Your task to perform on an android device: change text size in settings app Image 0: 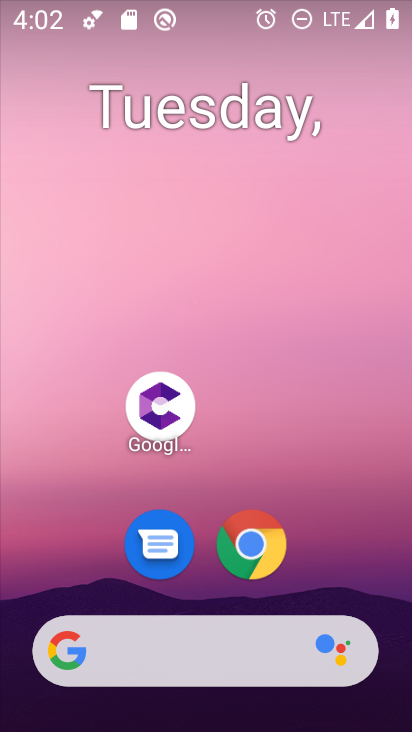
Step 0: drag from (357, 570) to (365, 164)
Your task to perform on an android device: change text size in settings app Image 1: 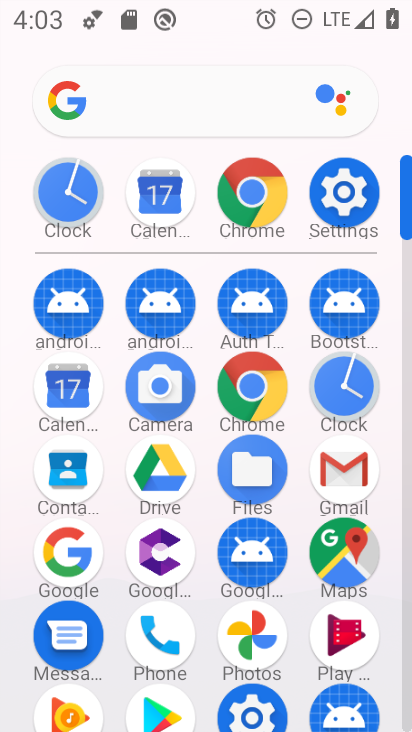
Step 1: click (353, 212)
Your task to perform on an android device: change text size in settings app Image 2: 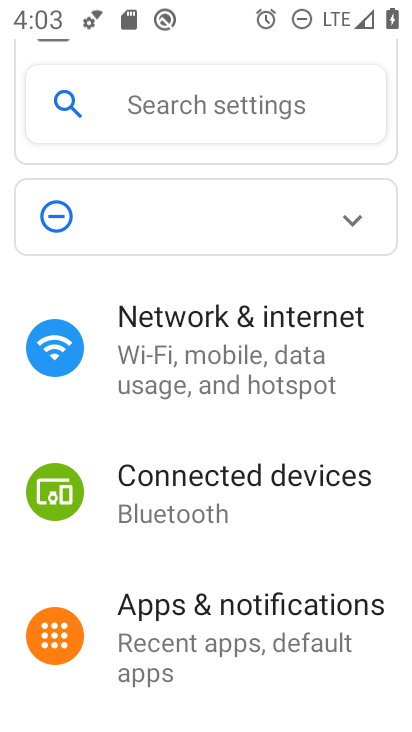
Step 2: drag from (340, 561) to (351, 414)
Your task to perform on an android device: change text size in settings app Image 3: 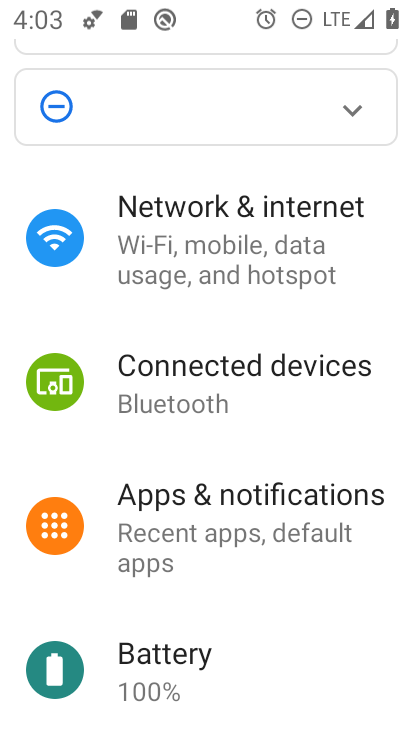
Step 3: drag from (322, 616) to (325, 446)
Your task to perform on an android device: change text size in settings app Image 4: 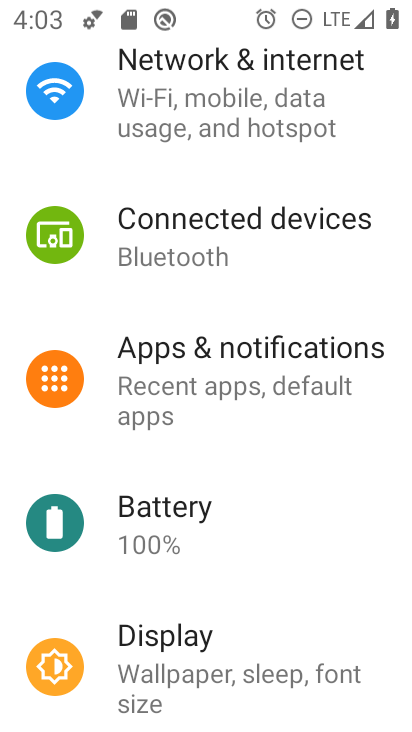
Step 4: drag from (308, 624) to (319, 467)
Your task to perform on an android device: change text size in settings app Image 5: 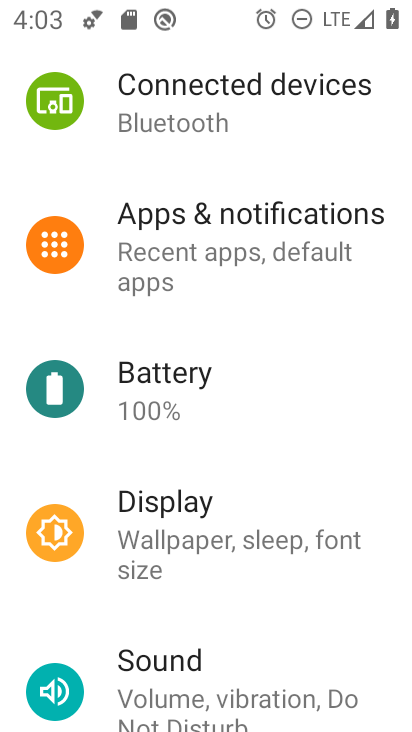
Step 5: drag from (295, 636) to (291, 473)
Your task to perform on an android device: change text size in settings app Image 6: 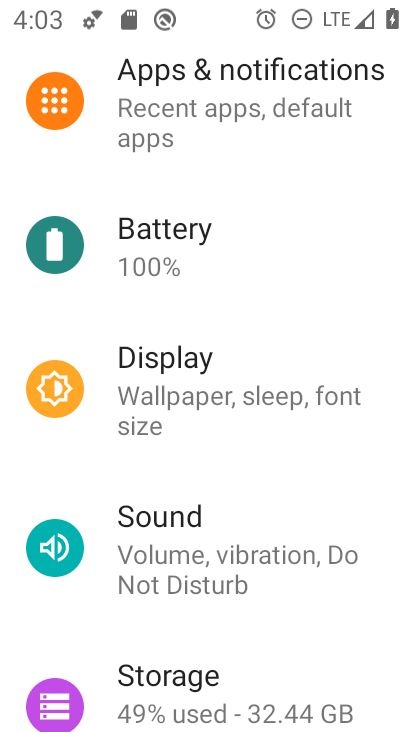
Step 6: drag from (311, 649) to (314, 474)
Your task to perform on an android device: change text size in settings app Image 7: 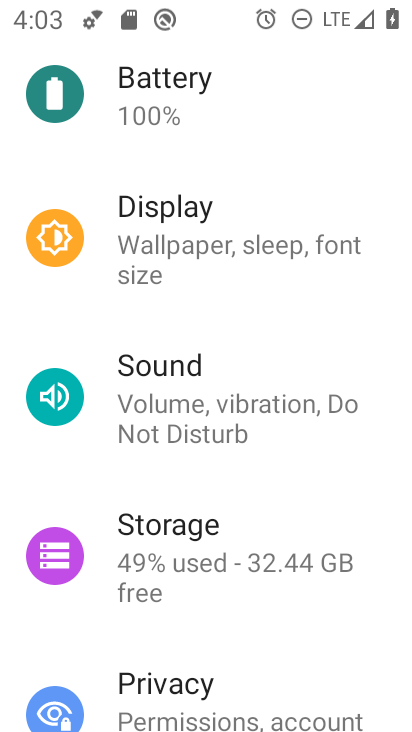
Step 7: drag from (293, 646) to (299, 461)
Your task to perform on an android device: change text size in settings app Image 8: 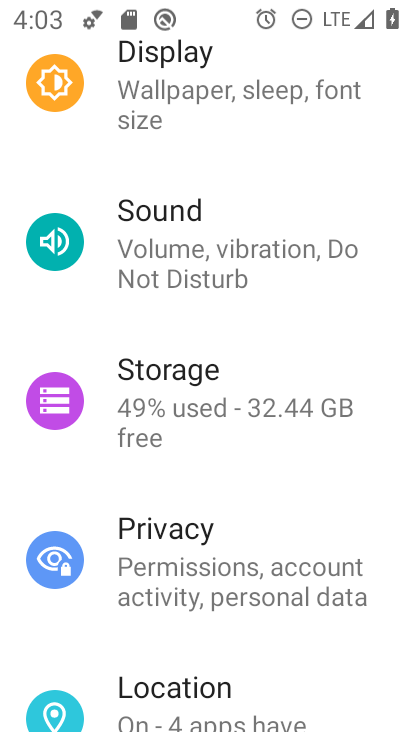
Step 8: drag from (305, 652) to (311, 485)
Your task to perform on an android device: change text size in settings app Image 9: 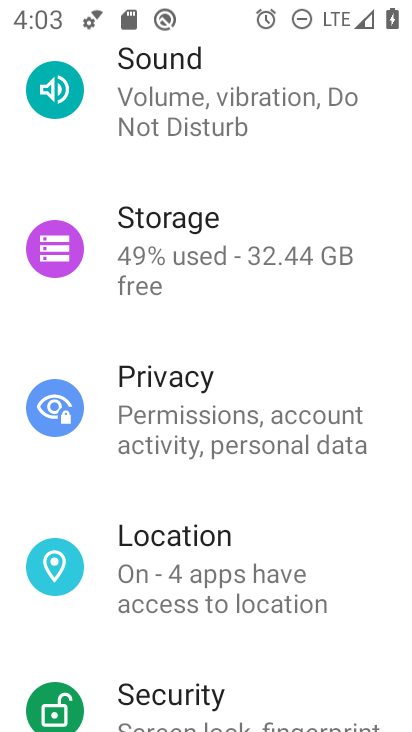
Step 9: drag from (332, 681) to (352, 519)
Your task to perform on an android device: change text size in settings app Image 10: 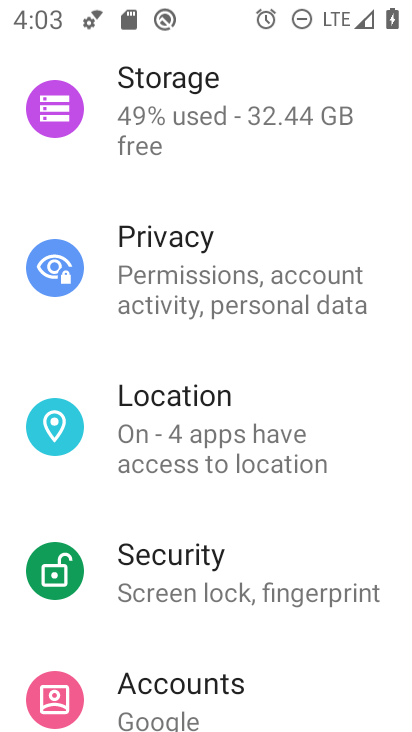
Step 10: drag from (323, 679) to (313, 539)
Your task to perform on an android device: change text size in settings app Image 11: 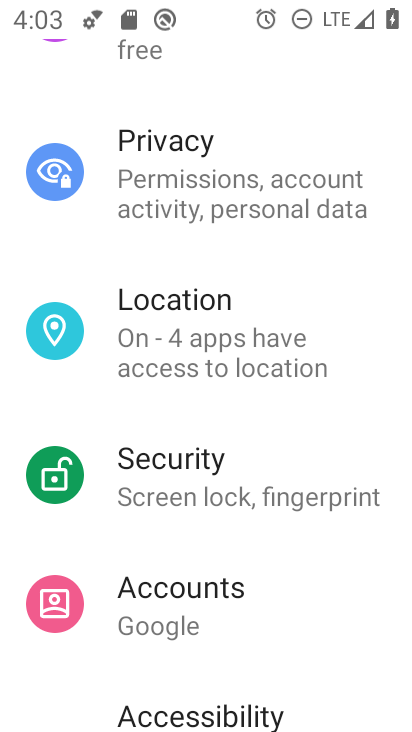
Step 11: drag from (310, 666) to (302, 564)
Your task to perform on an android device: change text size in settings app Image 12: 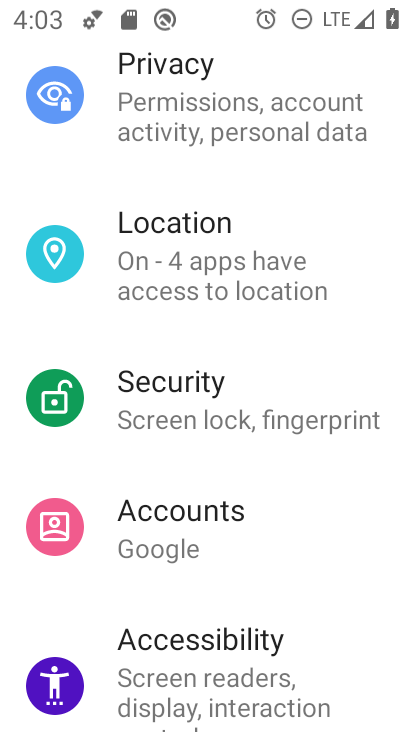
Step 12: drag from (331, 643) to (345, 533)
Your task to perform on an android device: change text size in settings app Image 13: 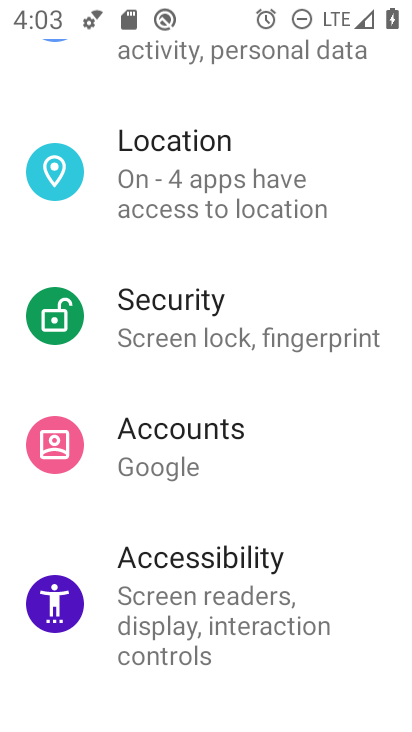
Step 13: drag from (362, 407) to (352, 560)
Your task to perform on an android device: change text size in settings app Image 14: 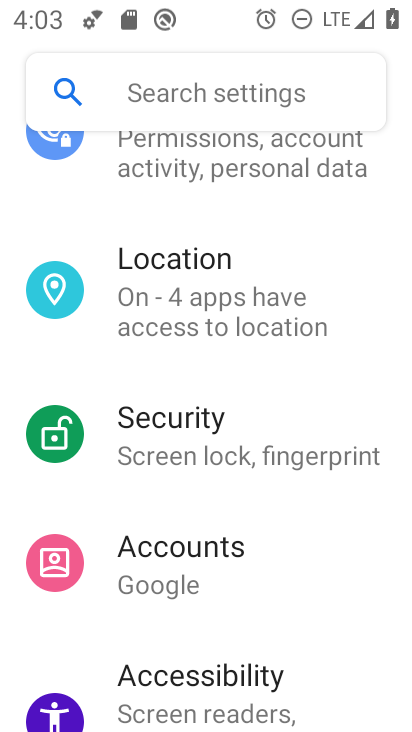
Step 14: drag from (356, 410) to (348, 529)
Your task to perform on an android device: change text size in settings app Image 15: 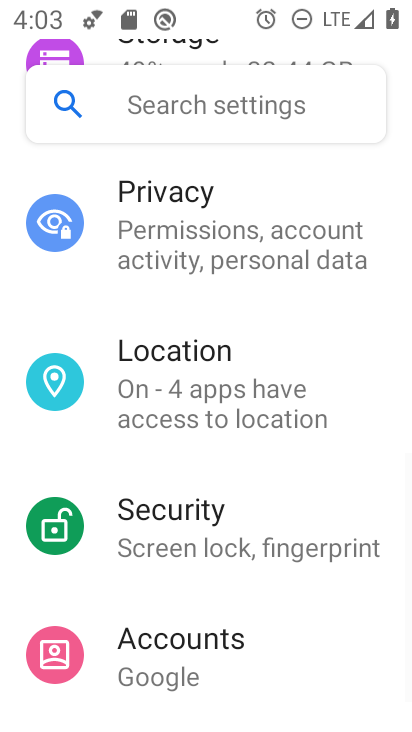
Step 15: drag from (366, 380) to (352, 488)
Your task to perform on an android device: change text size in settings app Image 16: 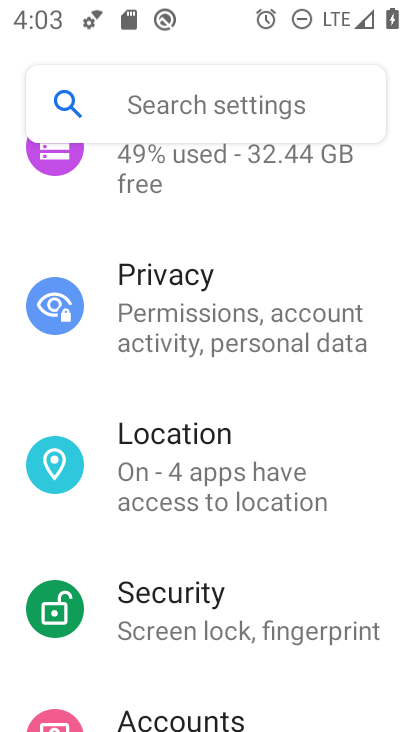
Step 16: drag from (384, 298) to (373, 451)
Your task to perform on an android device: change text size in settings app Image 17: 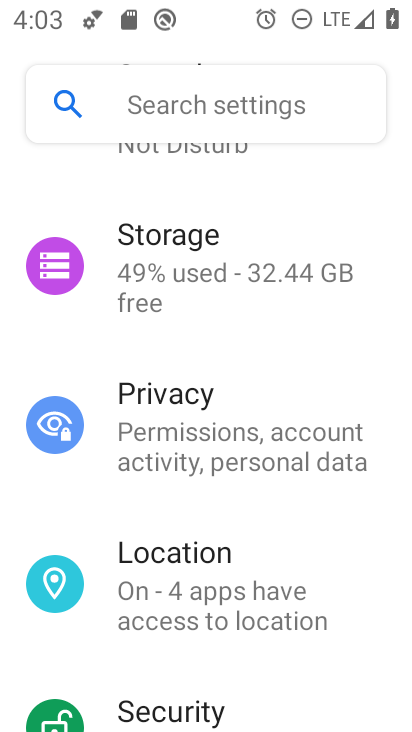
Step 17: drag from (367, 293) to (380, 395)
Your task to perform on an android device: change text size in settings app Image 18: 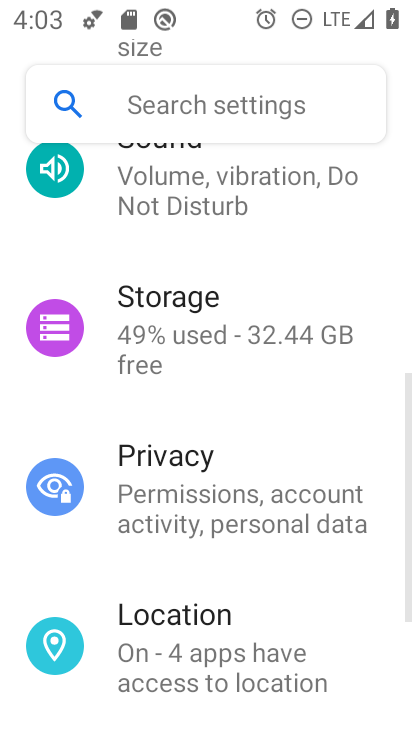
Step 18: drag from (379, 273) to (381, 378)
Your task to perform on an android device: change text size in settings app Image 19: 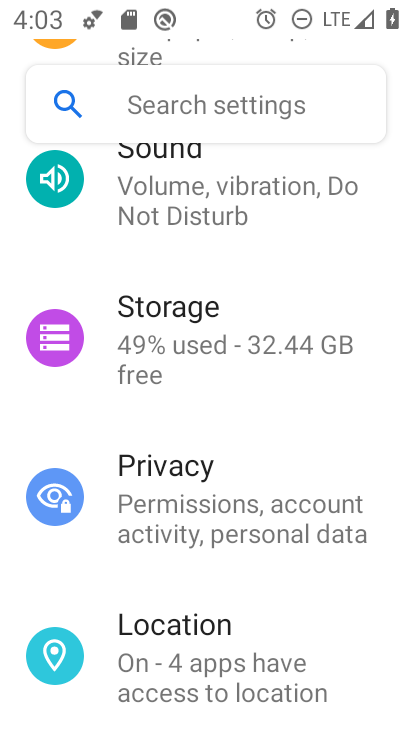
Step 19: drag from (379, 249) to (355, 415)
Your task to perform on an android device: change text size in settings app Image 20: 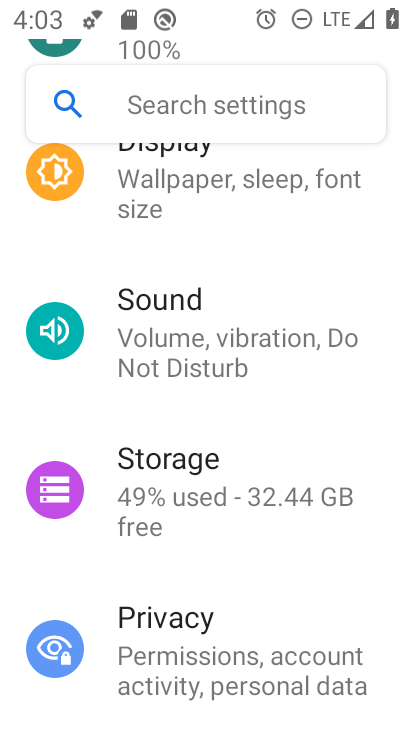
Step 20: drag from (351, 274) to (341, 421)
Your task to perform on an android device: change text size in settings app Image 21: 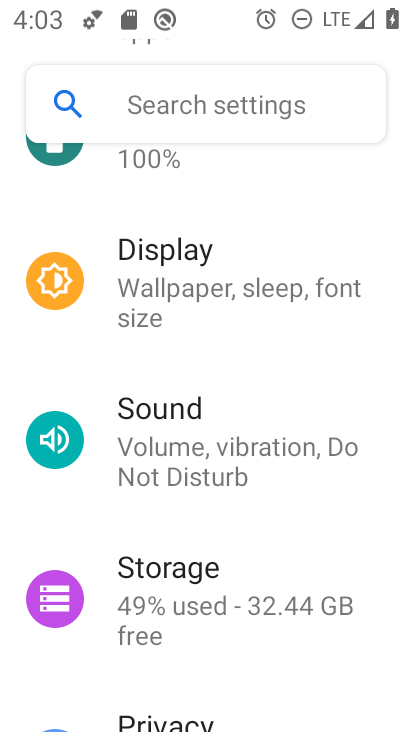
Step 21: drag from (365, 252) to (374, 411)
Your task to perform on an android device: change text size in settings app Image 22: 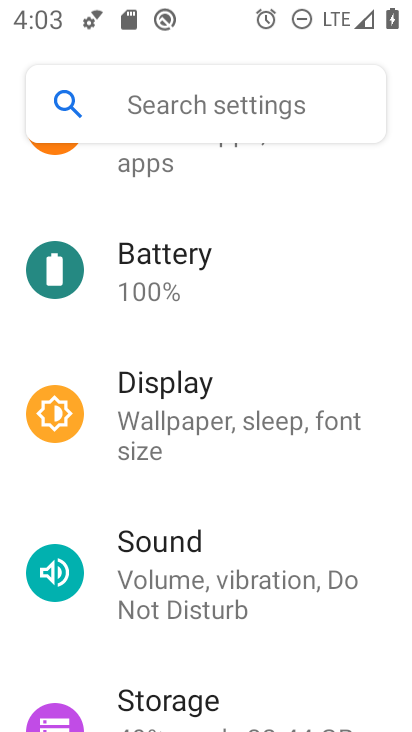
Step 22: click (314, 413)
Your task to perform on an android device: change text size in settings app Image 23: 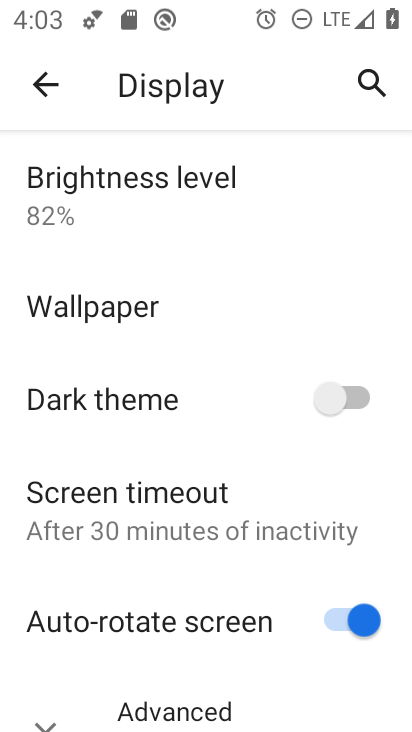
Step 23: drag from (238, 571) to (241, 403)
Your task to perform on an android device: change text size in settings app Image 24: 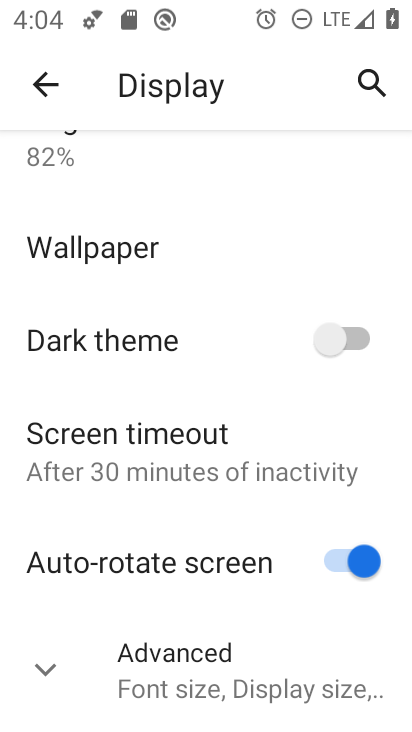
Step 24: click (191, 666)
Your task to perform on an android device: change text size in settings app Image 25: 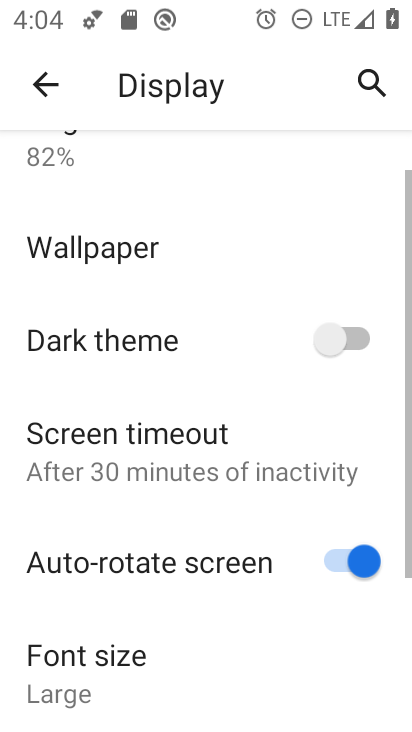
Step 25: drag from (256, 613) to (271, 387)
Your task to perform on an android device: change text size in settings app Image 26: 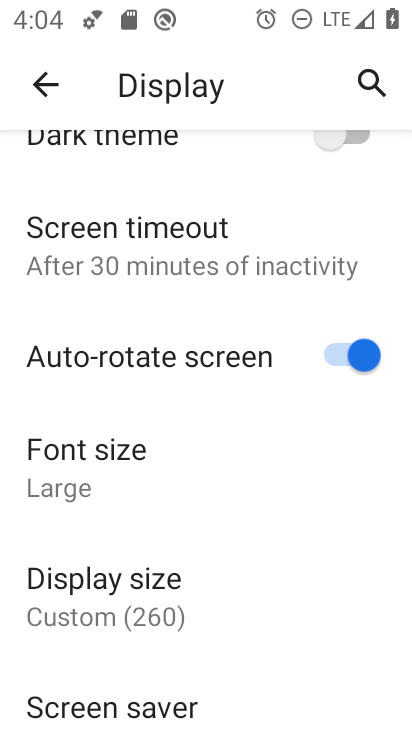
Step 26: drag from (277, 601) to (293, 457)
Your task to perform on an android device: change text size in settings app Image 27: 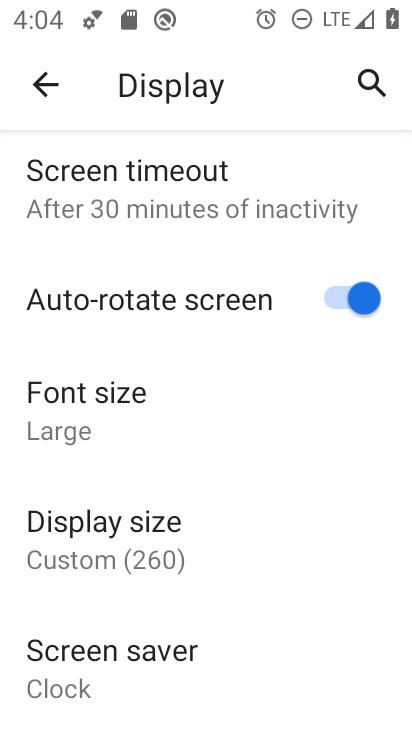
Step 27: click (104, 420)
Your task to perform on an android device: change text size in settings app Image 28: 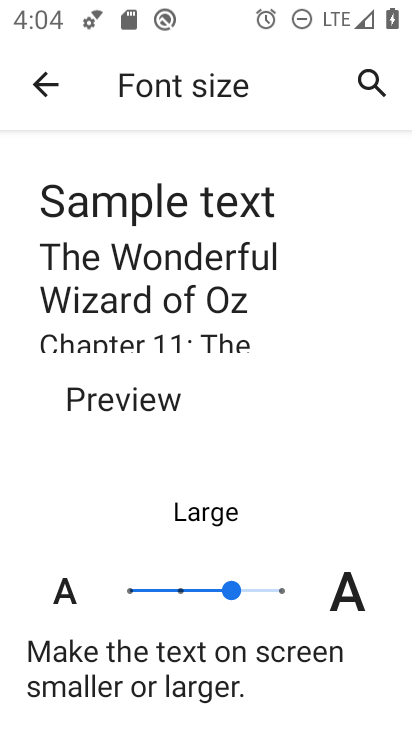
Step 28: click (190, 589)
Your task to perform on an android device: change text size in settings app Image 29: 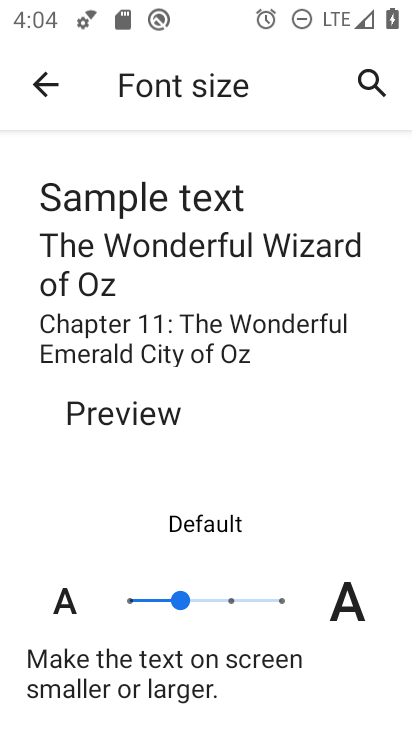
Step 29: task complete